Your task to perform on an android device: What's the news in Thailand? Image 0: 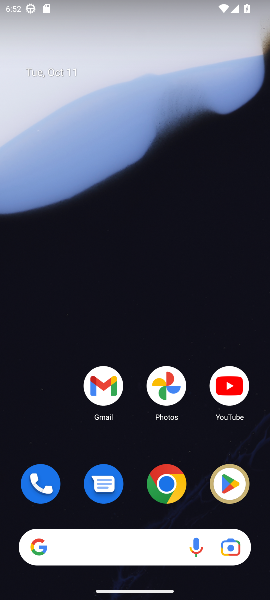
Step 0: click (168, 483)
Your task to perform on an android device: What's the news in Thailand? Image 1: 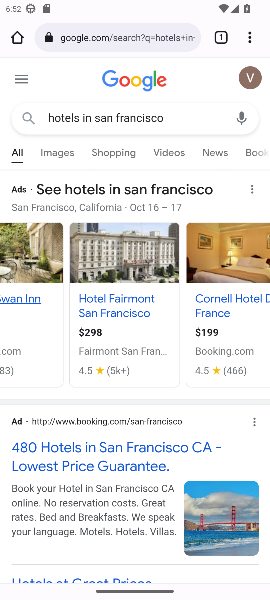
Step 1: click (164, 34)
Your task to perform on an android device: What's the news in Thailand? Image 2: 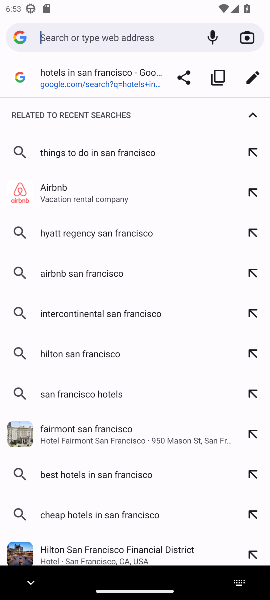
Step 2: type "What's the news in Thailand?"
Your task to perform on an android device: What's the news in Thailand? Image 3: 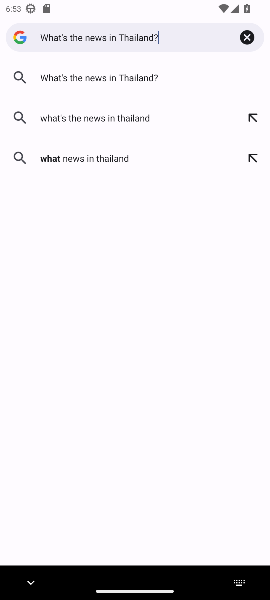
Step 3: click (117, 80)
Your task to perform on an android device: What's the news in Thailand? Image 4: 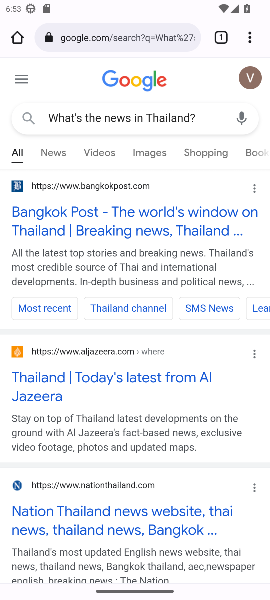
Step 4: click (112, 378)
Your task to perform on an android device: What's the news in Thailand? Image 5: 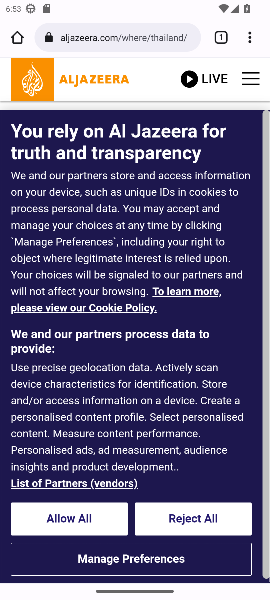
Step 5: click (54, 521)
Your task to perform on an android device: What's the news in Thailand? Image 6: 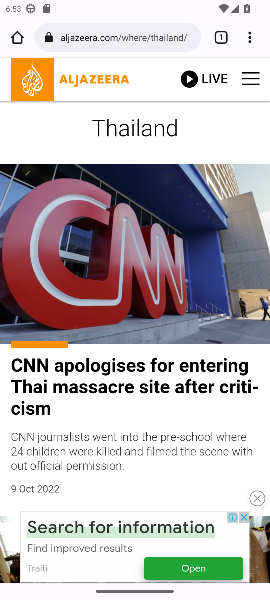
Step 6: task complete